Your task to perform on an android device: What's on my calendar today? Image 0: 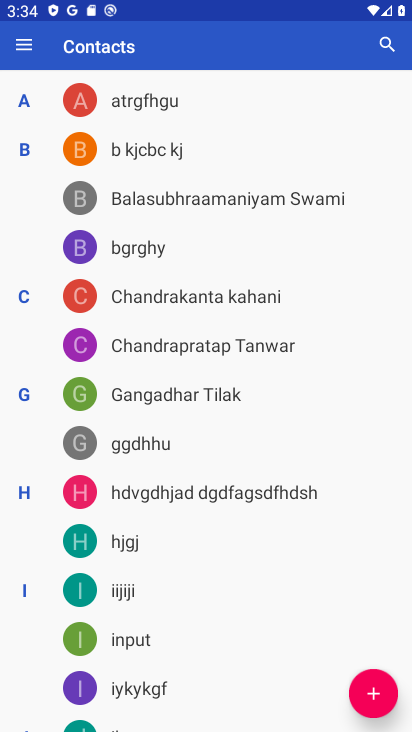
Step 0: press back button
Your task to perform on an android device: What's on my calendar today? Image 1: 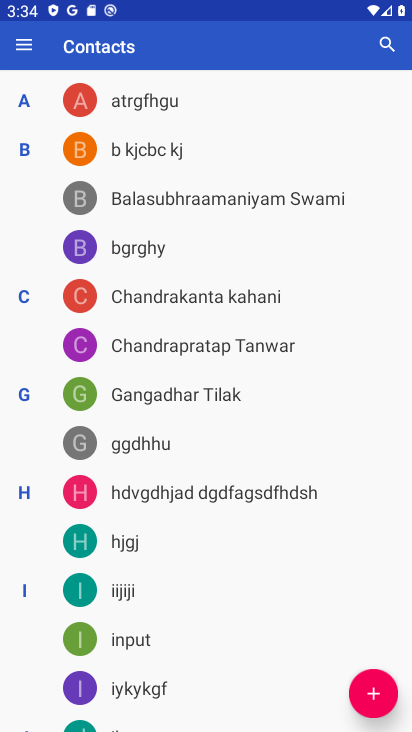
Step 1: press back button
Your task to perform on an android device: What's on my calendar today? Image 2: 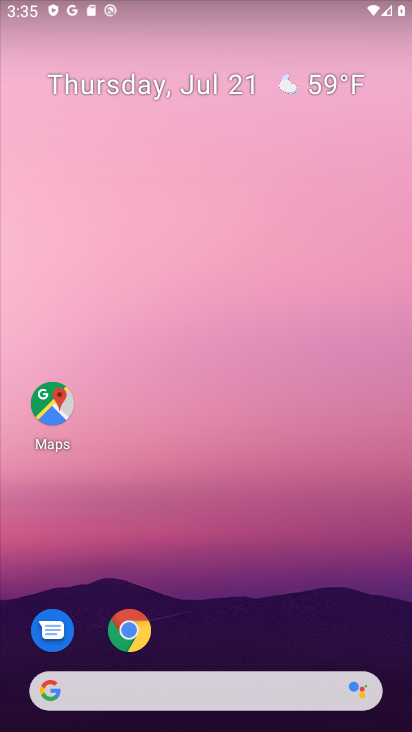
Step 2: drag from (283, 635) to (266, 164)
Your task to perform on an android device: What's on my calendar today? Image 3: 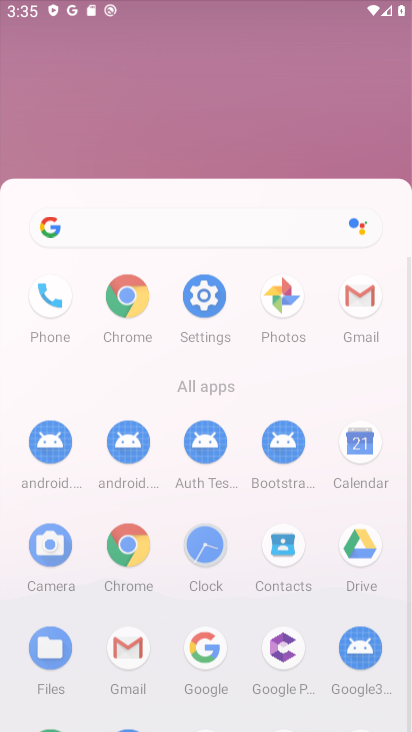
Step 3: drag from (257, 512) to (243, 108)
Your task to perform on an android device: What's on my calendar today? Image 4: 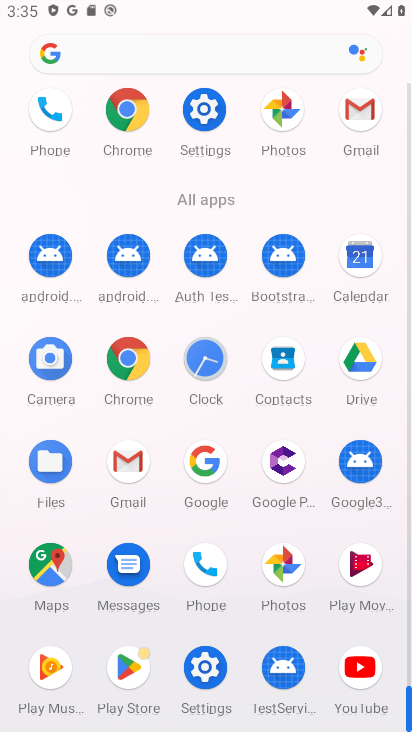
Step 4: click (352, 259)
Your task to perform on an android device: What's on my calendar today? Image 5: 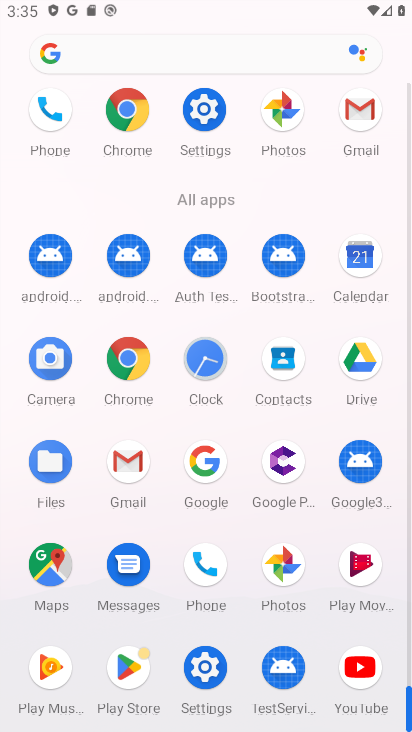
Step 5: click (355, 256)
Your task to perform on an android device: What's on my calendar today? Image 6: 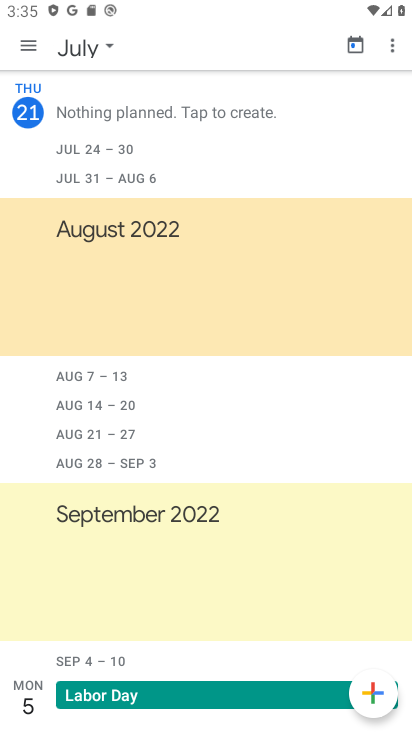
Step 6: click (104, 48)
Your task to perform on an android device: What's on my calendar today? Image 7: 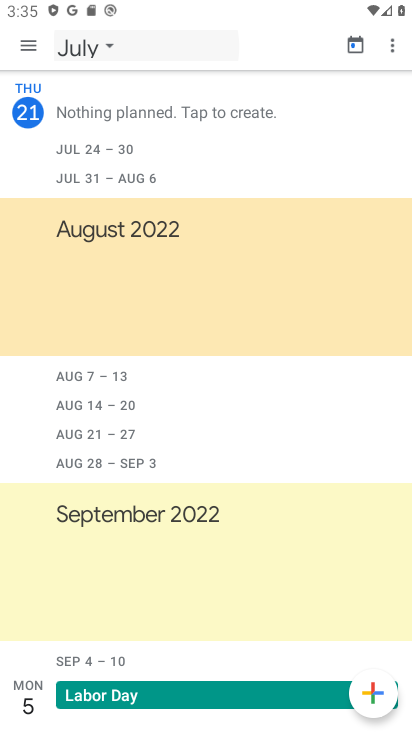
Step 7: click (105, 45)
Your task to perform on an android device: What's on my calendar today? Image 8: 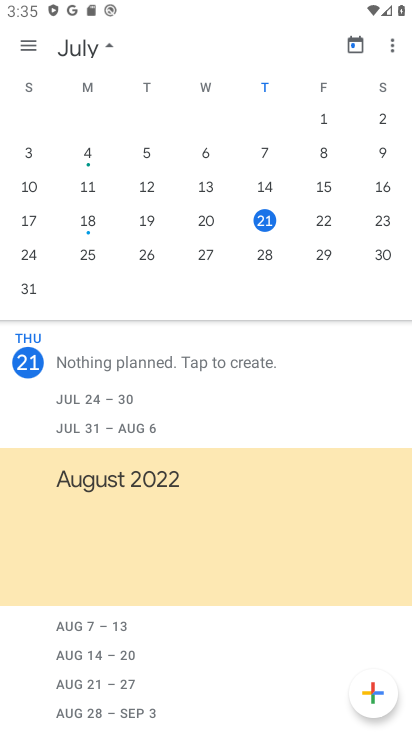
Step 8: click (265, 228)
Your task to perform on an android device: What's on my calendar today? Image 9: 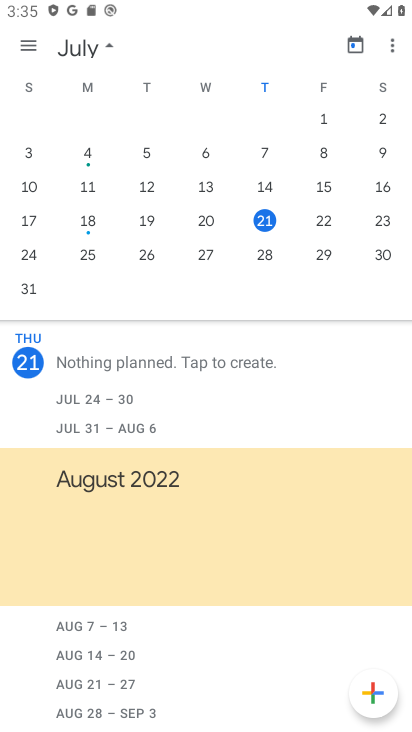
Step 9: click (267, 222)
Your task to perform on an android device: What's on my calendar today? Image 10: 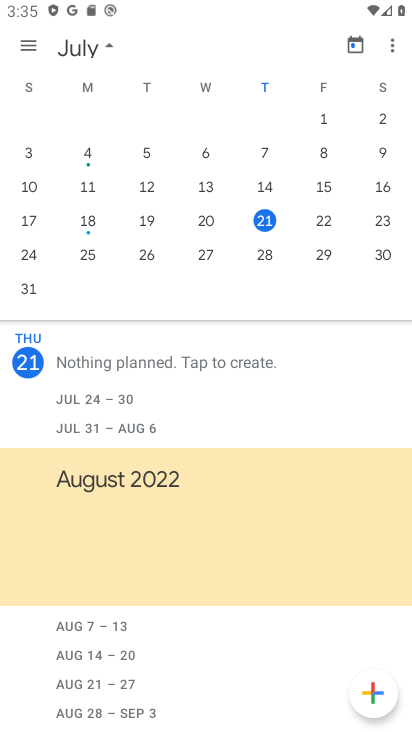
Step 10: task complete